Your task to perform on an android device: Open eBay Image 0: 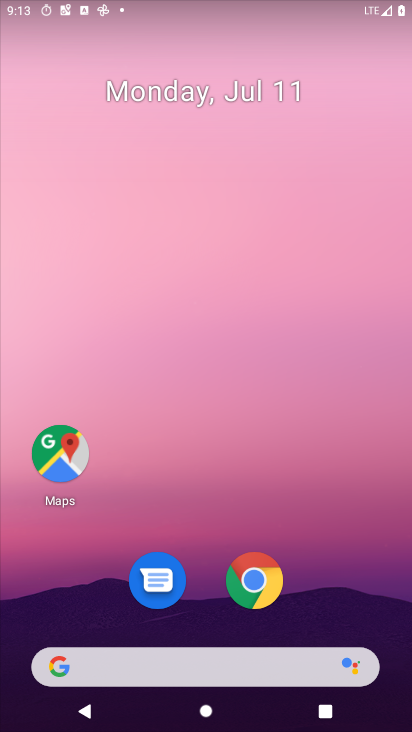
Step 0: click (170, 669)
Your task to perform on an android device: Open eBay Image 1: 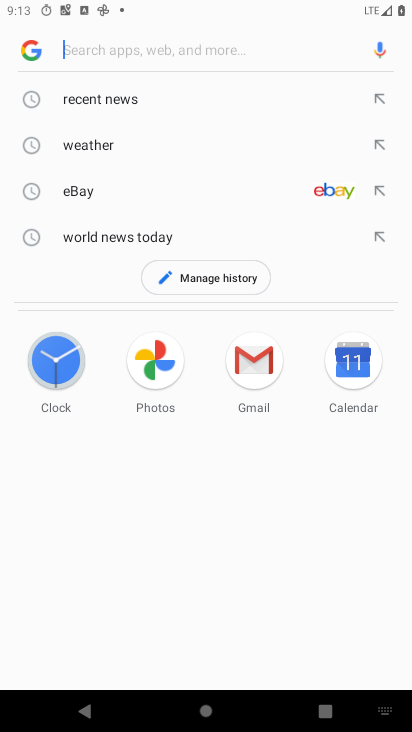
Step 1: type ""
Your task to perform on an android device: Open eBay Image 2: 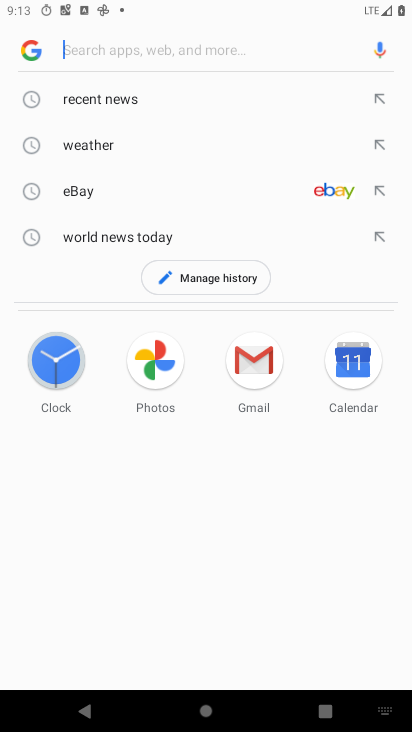
Step 2: click (331, 190)
Your task to perform on an android device: Open eBay Image 3: 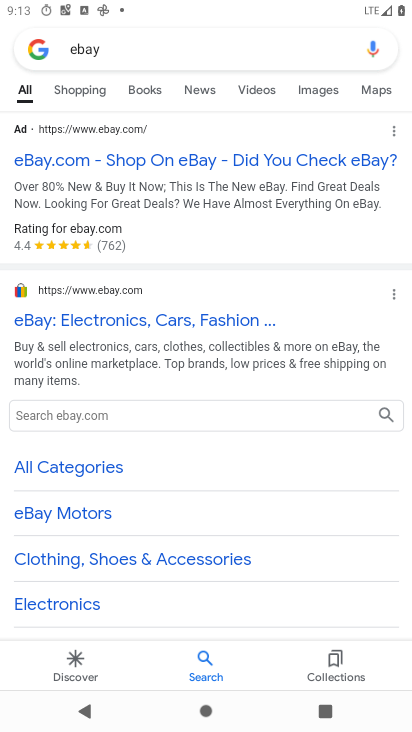
Step 3: click (42, 151)
Your task to perform on an android device: Open eBay Image 4: 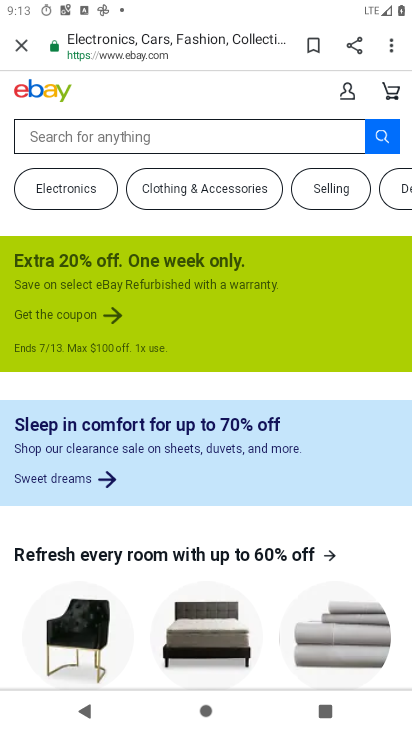
Step 4: task complete